Your task to perform on an android device: Open location settings Image 0: 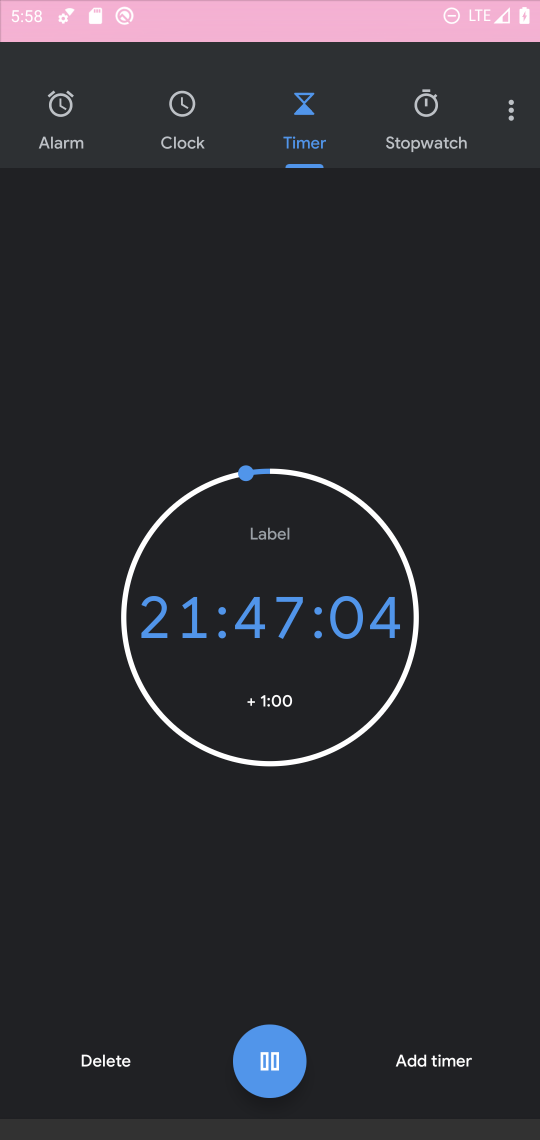
Step 0: press home button
Your task to perform on an android device: Open location settings Image 1: 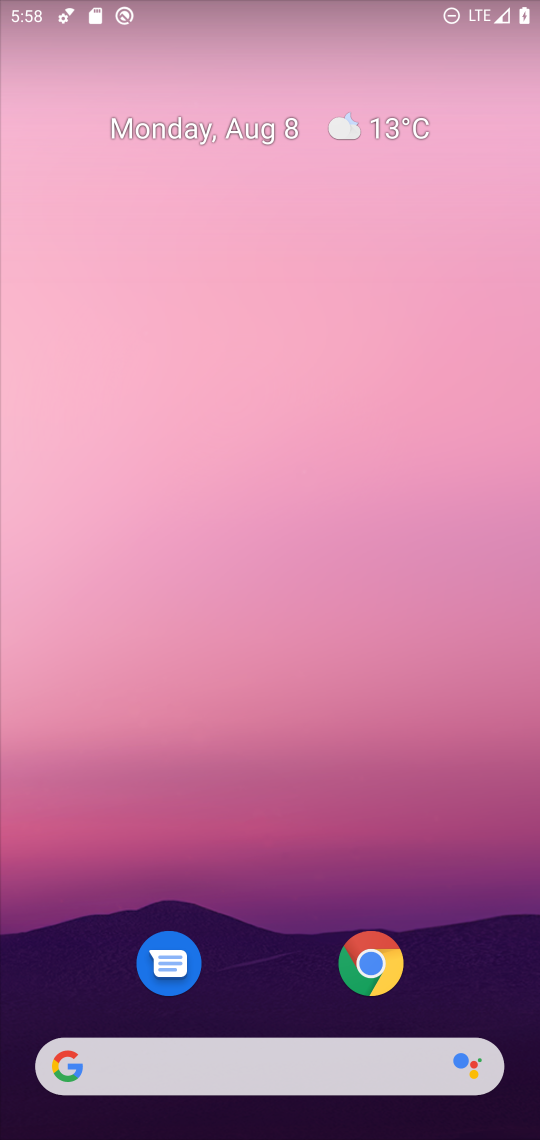
Step 1: drag from (260, 948) to (284, 353)
Your task to perform on an android device: Open location settings Image 2: 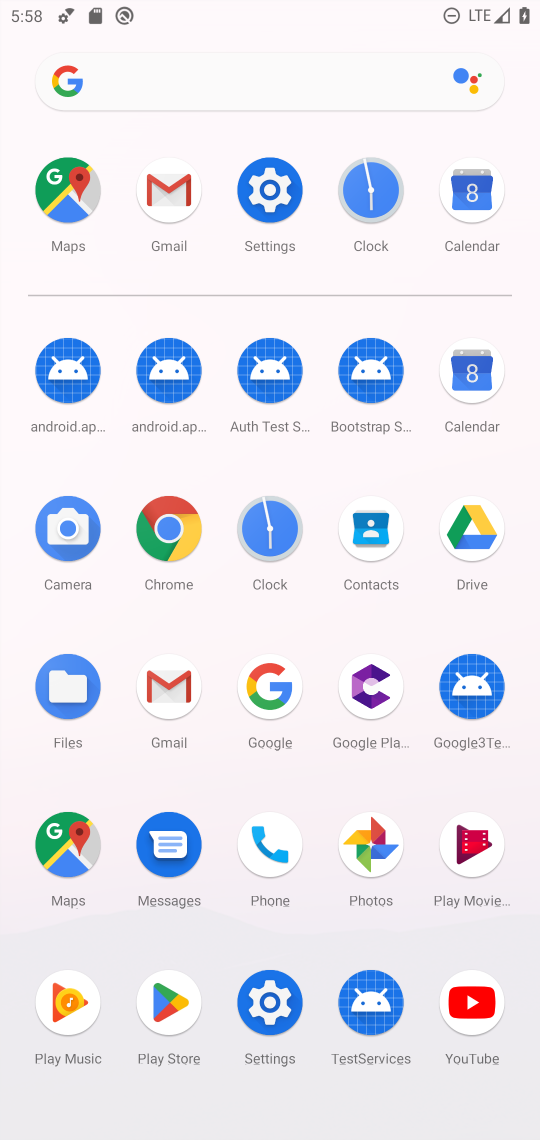
Step 2: click (275, 174)
Your task to perform on an android device: Open location settings Image 3: 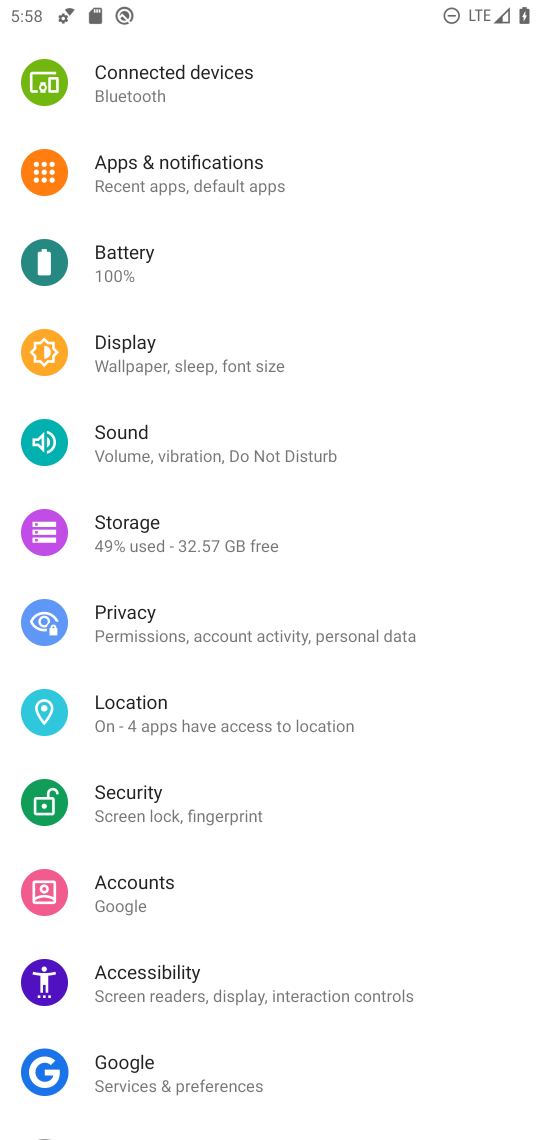
Step 3: click (131, 712)
Your task to perform on an android device: Open location settings Image 4: 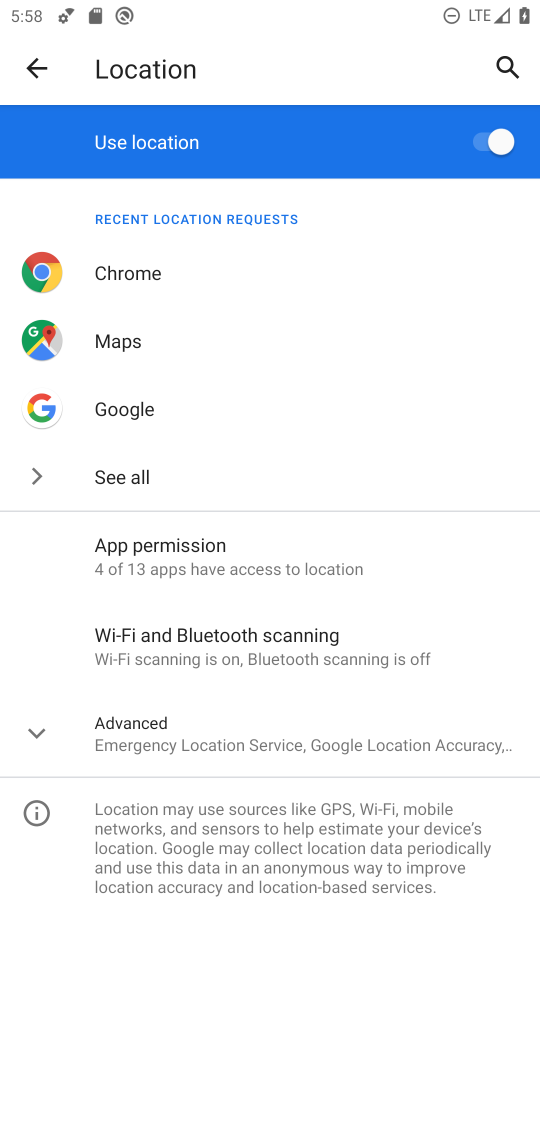
Step 4: task complete